Your task to perform on an android device: Go to Android settings Image 0: 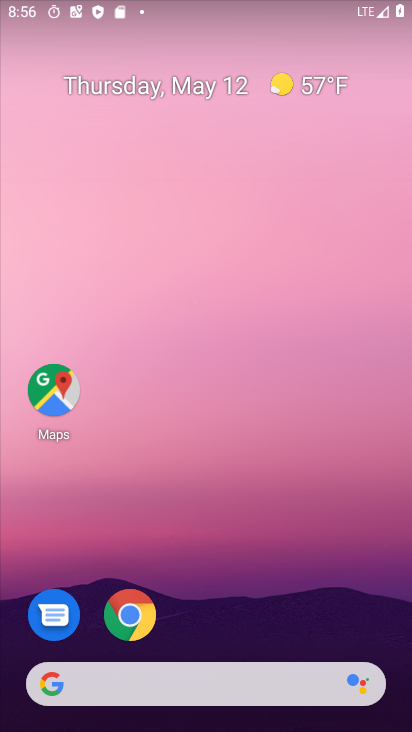
Step 0: drag from (223, 577) to (172, 1)
Your task to perform on an android device: Go to Android settings Image 1: 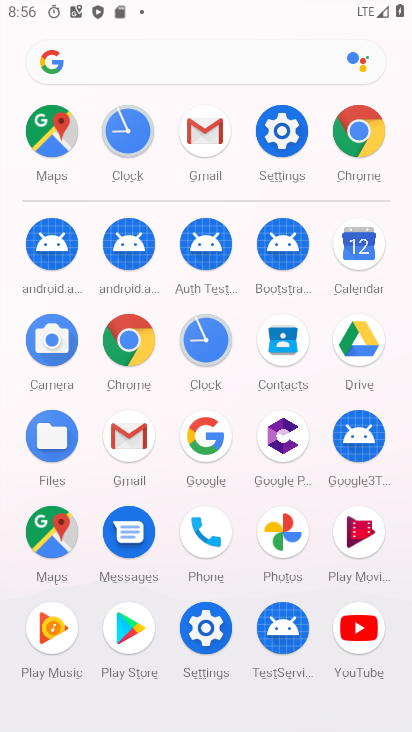
Step 1: click (205, 622)
Your task to perform on an android device: Go to Android settings Image 2: 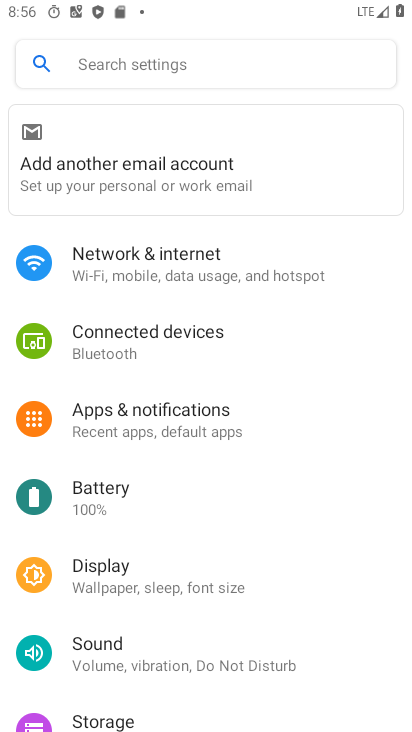
Step 2: task complete